Your task to perform on an android device: Open Amazon Image 0: 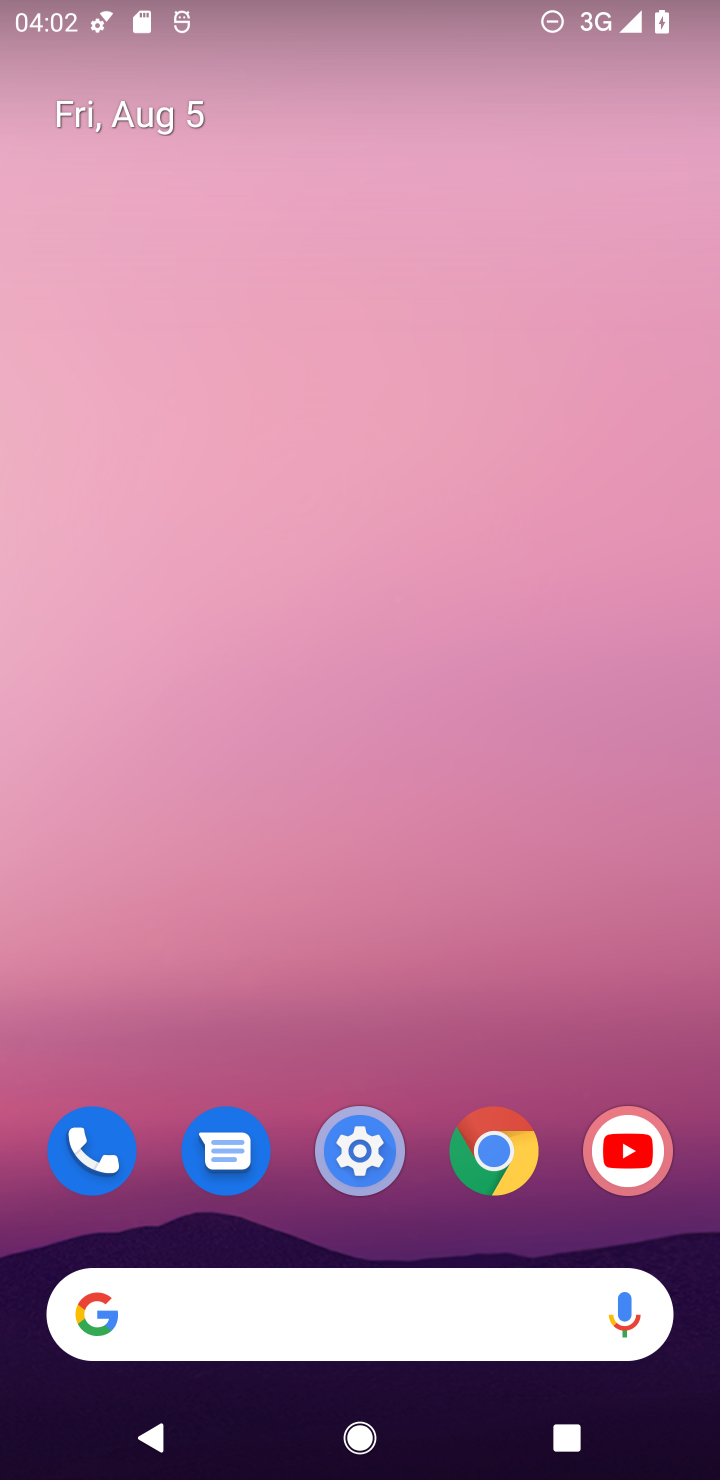
Step 0: click (494, 1151)
Your task to perform on an android device: Open Amazon Image 1: 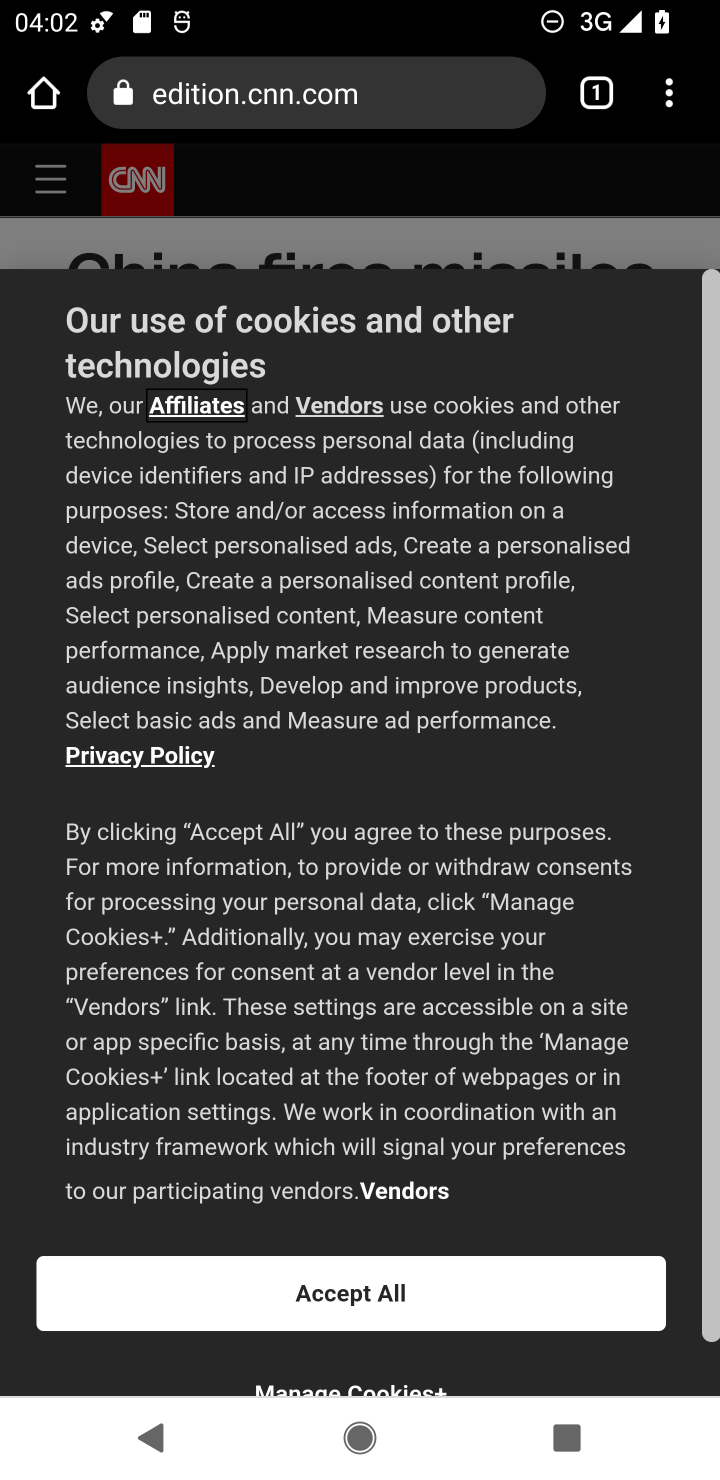
Step 1: click (348, 100)
Your task to perform on an android device: Open Amazon Image 2: 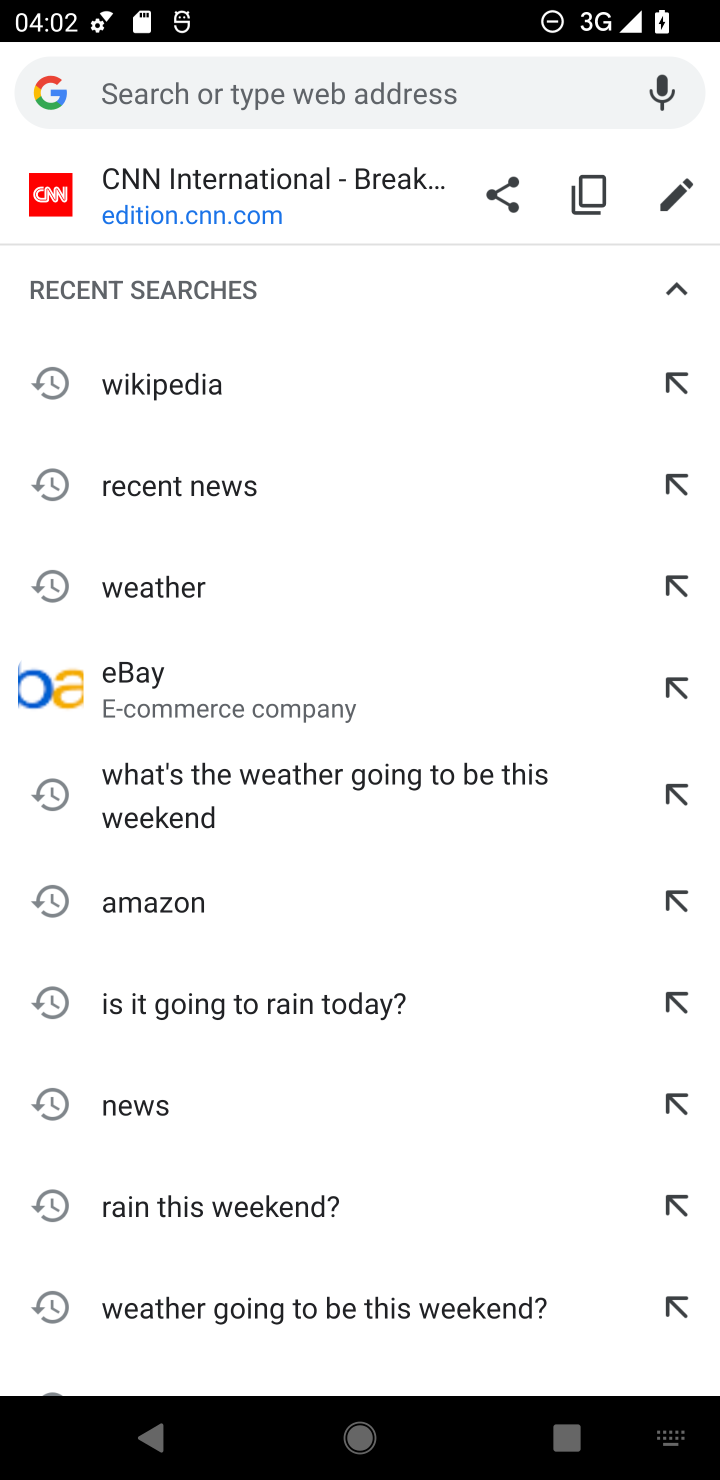
Step 2: type "amazon"
Your task to perform on an android device: Open Amazon Image 3: 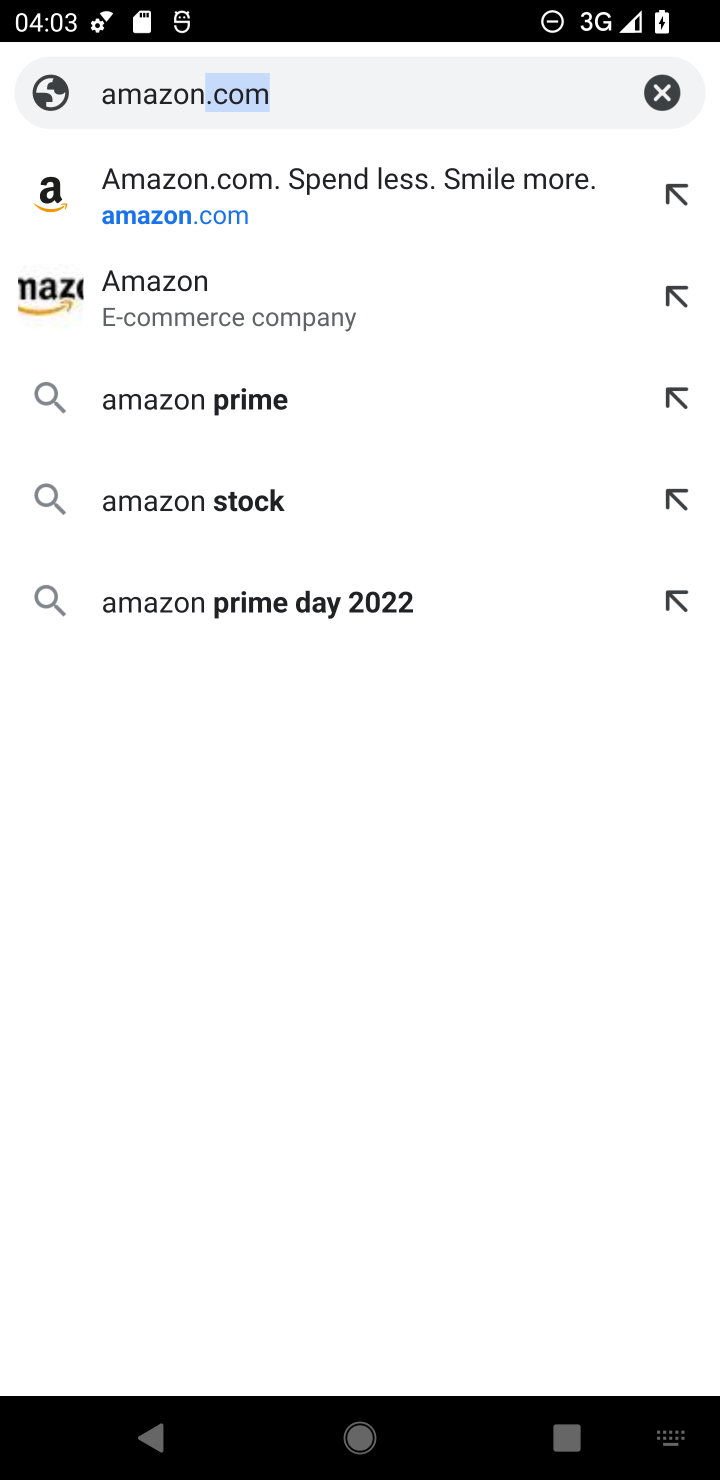
Step 3: click (385, 154)
Your task to perform on an android device: Open Amazon Image 4: 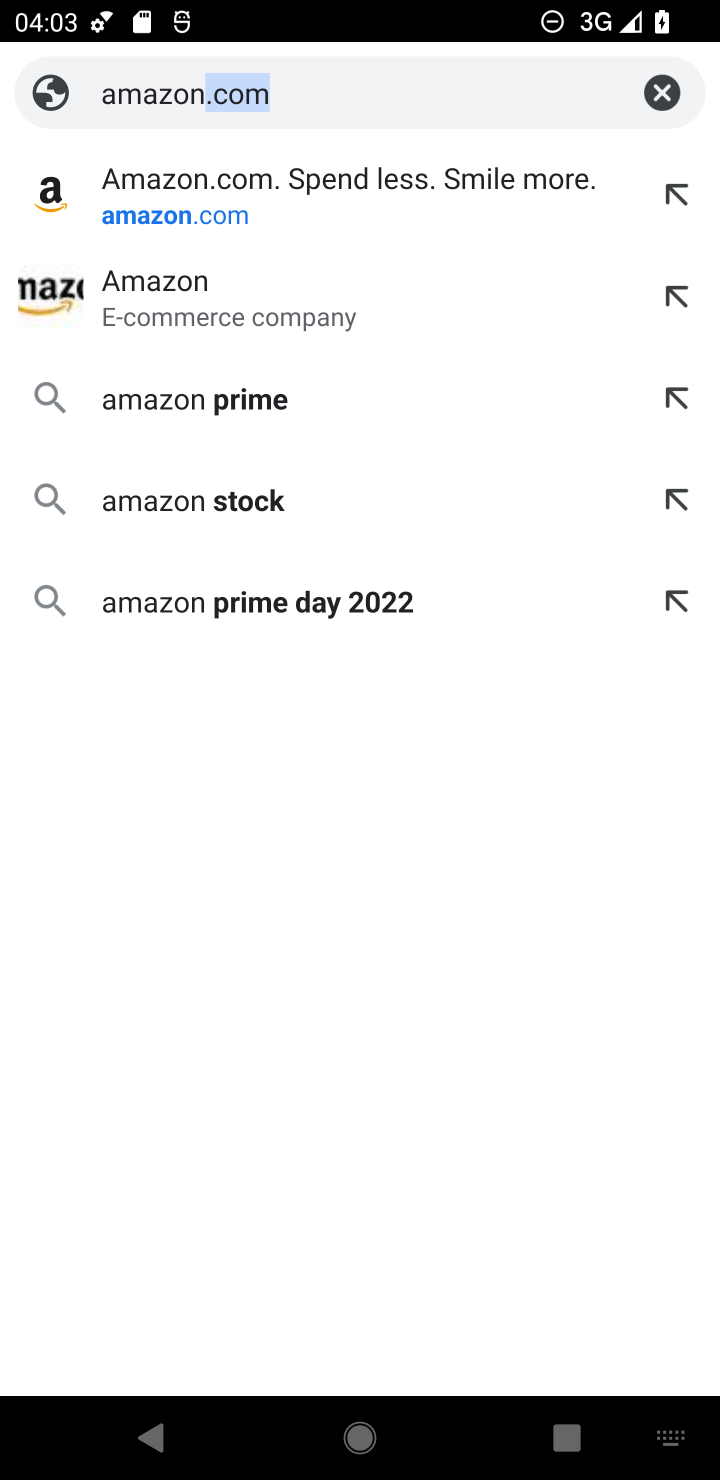
Step 4: click (410, 208)
Your task to perform on an android device: Open Amazon Image 5: 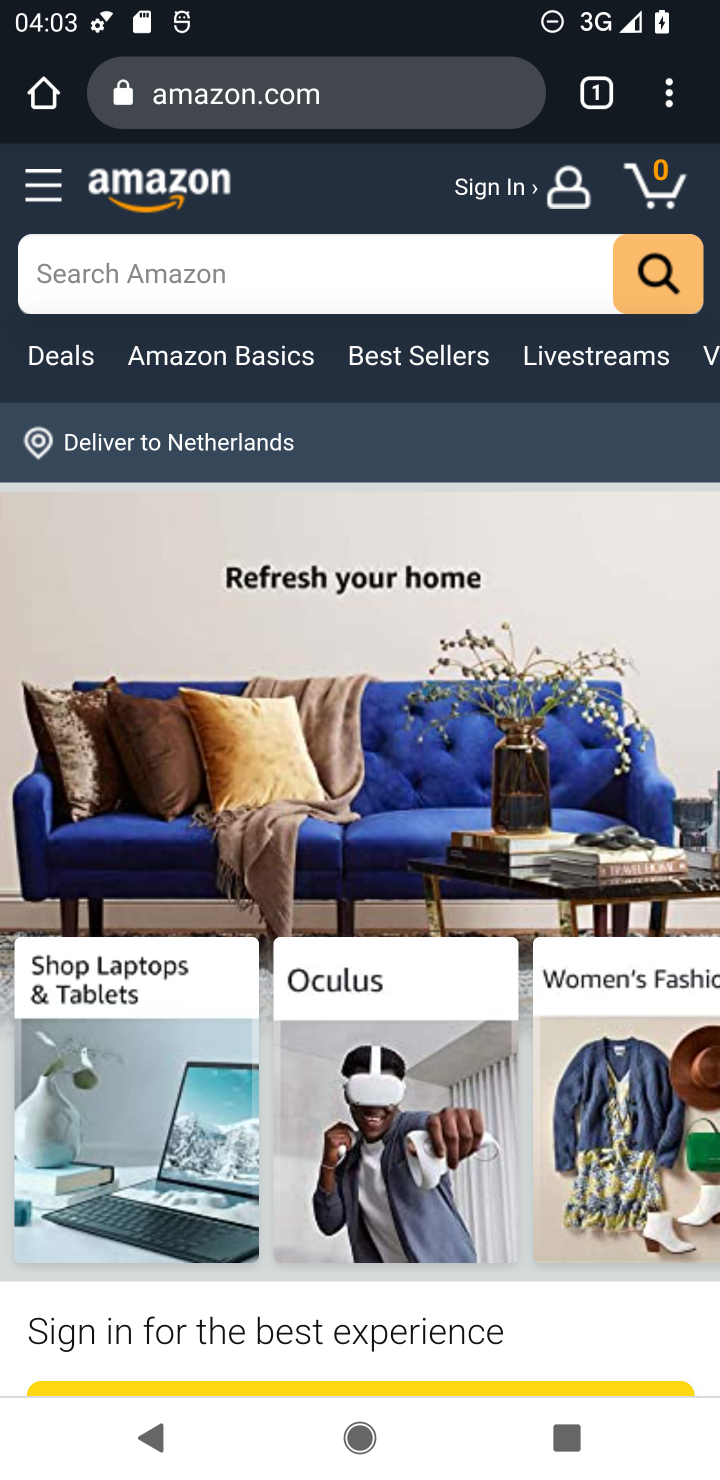
Step 5: task complete